Your task to perform on an android device: Empty the shopping cart on target. Add logitech g pro to the cart on target, then select checkout. Image 0: 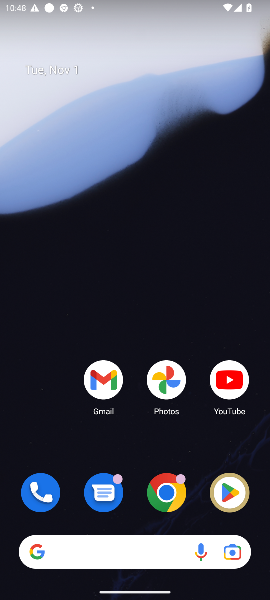
Step 0: press home button
Your task to perform on an android device: Empty the shopping cart on target. Add logitech g pro to the cart on target, then select checkout. Image 1: 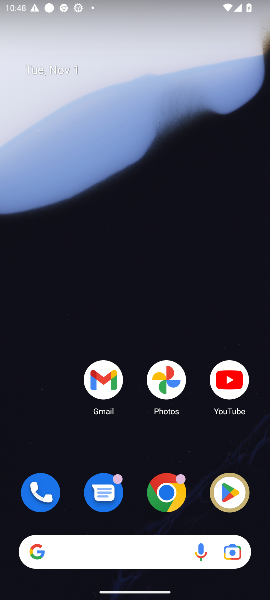
Step 1: click (170, 501)
Your task to perform on an android device: Empty the shopping cart on target. Add logitech g pro to the cart on target, then select checkout. Image 2: 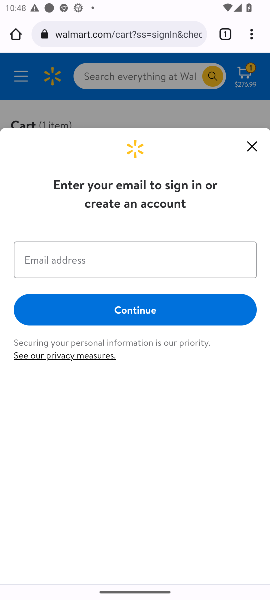
Step 2: click (136, 37)
Your task to perform on an android device: Empty the shopping cart on target. Add logitech g pro to the cart on target, then select checkout. Image 3: 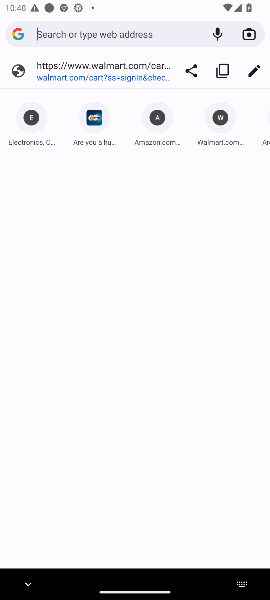
Step 3: type "target"
Your task to perform on an android device: Empty the shopping cart on target. Add logitech g pro to the cart on target, then select checkout. Image 4: 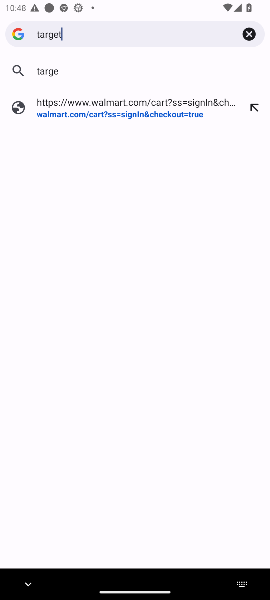
Step 4: type ""
Your task to perform on an android device: Empty the shopping cart on target. Add logitech g pro to the cart on target, then select checkout. Image 5: 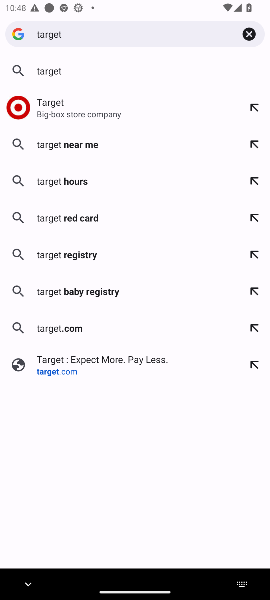
Step 5: click (78, 109)
Your task to perform on an android device: Empty the shopping cart on target. Add logitech g pro to the cart on target, then select checkout. Image 6: 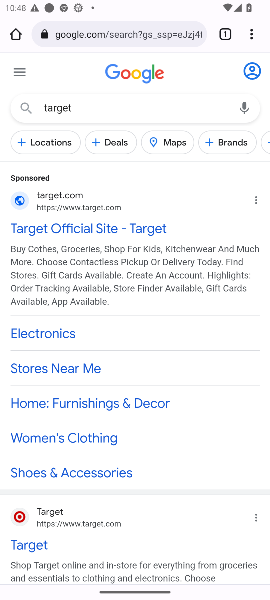
Step 6: click (57, 222)
Your task to perform on an android device: Empty the shopping cart on target. Add logitech g pro to the cart on target, then select checkout. Image 7: 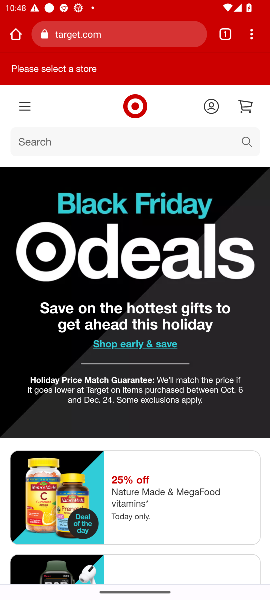
Step 7: click (243, 106)
Your task to perform on an android device: Empty the shopping cart on target. Add logitech g pro to the cart on target, then select checkout. Image 8: 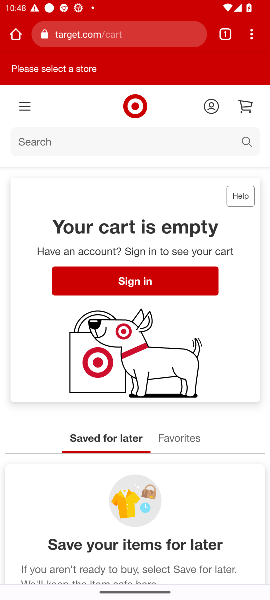
Step 8: press back button
Your task to perform on an android device: Empty the shopping cart on target. Add logitech g pro to the cart on target, then select checkout. Image 9: 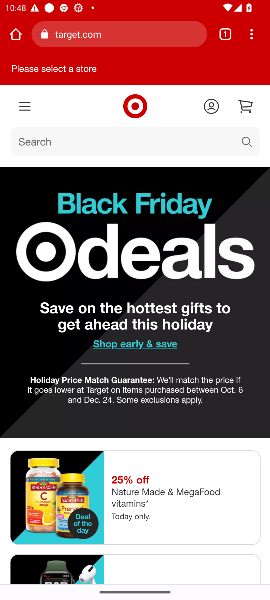
Step 9: click (86, 142)
Your task to perform on an android device: Empty the shopping cart on target. Add logitech g pro to the cart on target, then select checkout. Image 10: 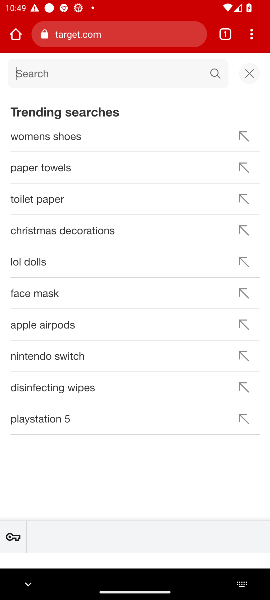
Step 10: type "logitech g pro"
Your task to perform on an android device: Empty the shopping cart on target. Add logitech g pro to the cart on target, then select checkout. Image 11: 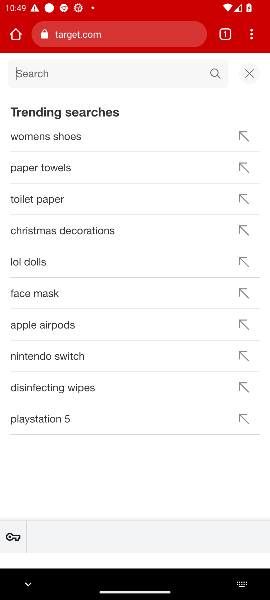
Step 11: type ""
Your task to perform on an android device: Empty the shopping cart on target. Add logitech g pro to the cart on target, then select checkout. Image 12: 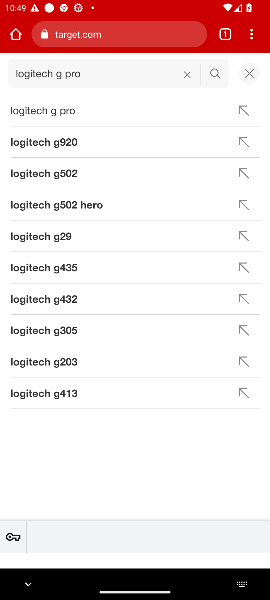
Step 12: click (83, 116)
Your task to perform on an android device: Empty the shopping cart on target. Add logitech g pro to the cart on target, then select checkout. Image 13: 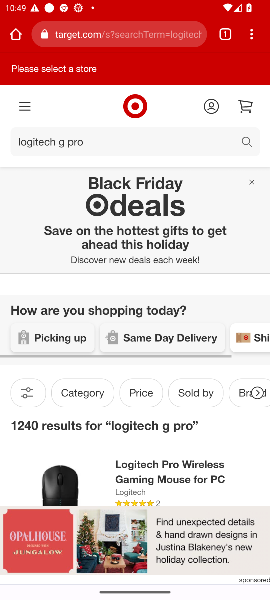
Step 13: drag from (133, 449) to (178, 261)
Your task to perform on an android device: Empty the shopping cart on target. Add logitech g pro to the cart on target, then select checkout. Image 14: 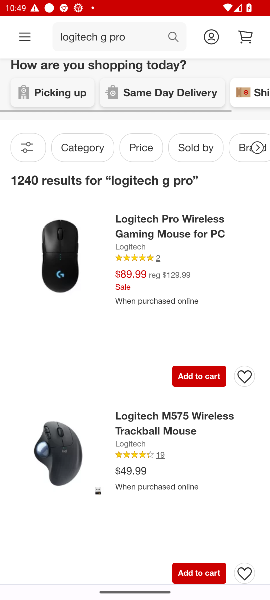
Step 14: drag from (137, 461) to (167, 319)
Your task to perform on an android device: Empty the shopping cart on target. Add logitech g pro to the cart on target, then select checkout. Image 15: 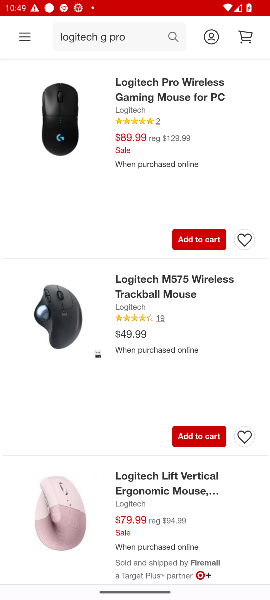
Step 15: drag from (157, 507) to (187, 351)
Your task to perform on an android device: Empty the shopping cart on target. Add logitech g pro to the cart on target, then select checkout. Image 16: 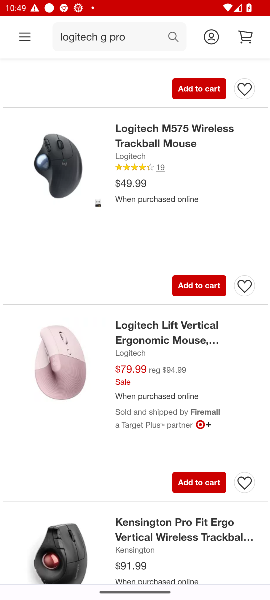
Step 16: drag from (147, 516) to (178, 590)
Your task to perform on an android device: Empty the shopping cart on target. Add logitech g pro to the cart on target, then select checkout. Image 17: 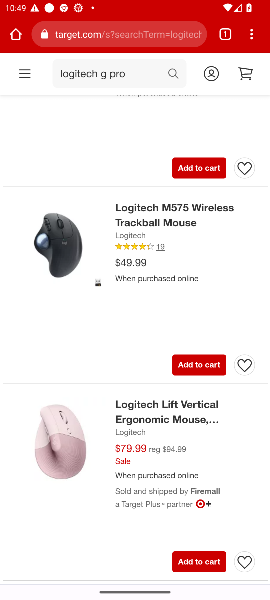
Step 17: click (66, 242)
Your task to perform on an android device: Empty the shopping cart on target. Add logitech g pro to the cart on target, then select checkout. Image 18: 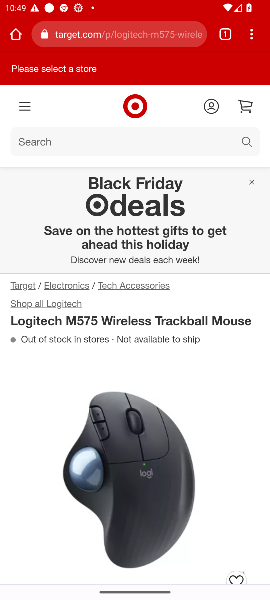
Step 18: press back button
Your task to perform on an android device: Empty the shopping cart on target. Add logitech g pro to the cart on target, then select checkout. Image 19: 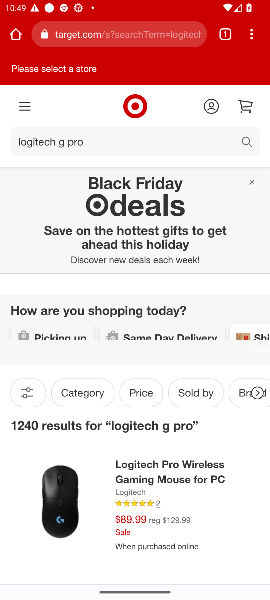
Step 19: click (74, 484)
Your task to perform on an android device: Empty the shopping cart on target. Add logitech g pro to the cart on target, then select checkout. Image 20: 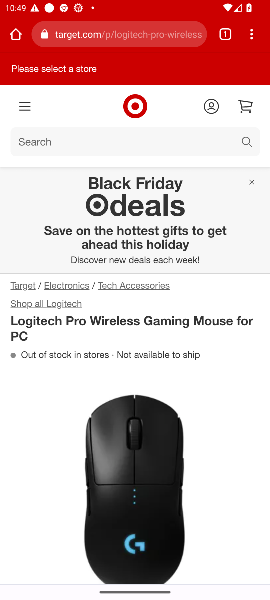
Step 20: drag from (165, 458) to (220, 210)
Your task to perform on an android device: Empty the shopping cart on target. Add logitech g pro to the cart on target, then select checkout. Image 21: 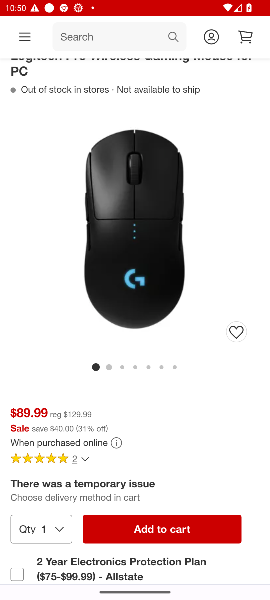
Step 21: click (160, 529)
Your task to perform on an android device: Empty the shopping cart on target. Add logitech g pro to the cart on target, then select checkout. Image 22: 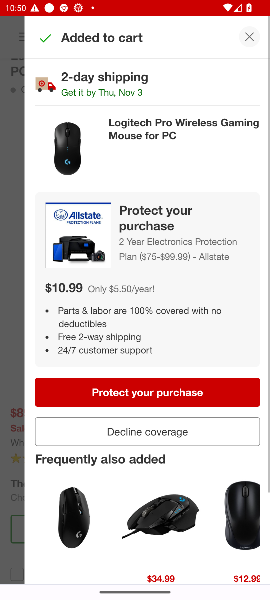
Step 22: click (183, 429)
Your task to perform on an android device: Empty the shopping cart on target. Add logitech g pro to the cart on target, then select checkout. Image 23: 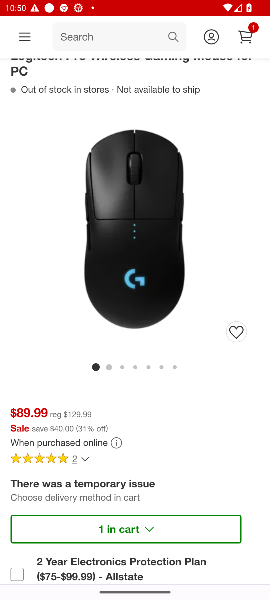
Step 23: click (251, 40)
Your task to perform on an android device: Empty the shopping cart on target. Add logitech g pro to the cart on target, then select checkout. Image 24: 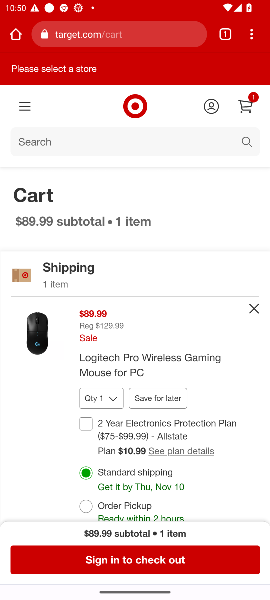
Step 24: drag from (170, 508) to (180, 292)
Your task to perform on an android device: Empty the shopping cart on target. Add logitech g pro to the cart on target, then select checkout. Image 25: 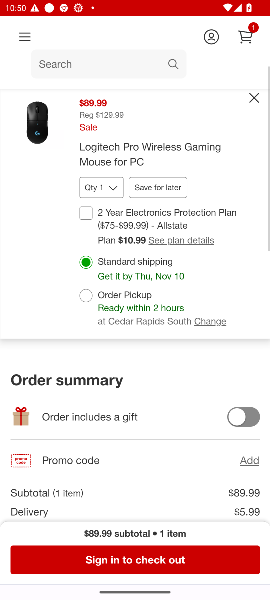
Step 25: click (142, 565)
Your task to perform on an android device: Empty the shopping cart on target. Add logitech g pro to the cart on target, then select checkout. Image 26: 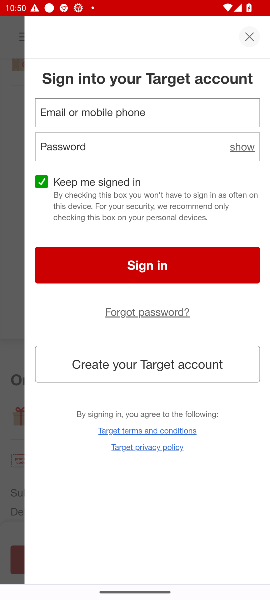
Step 26: task complete